Your task to perform on an android device: turn pop-ups off in chrome Image 0: 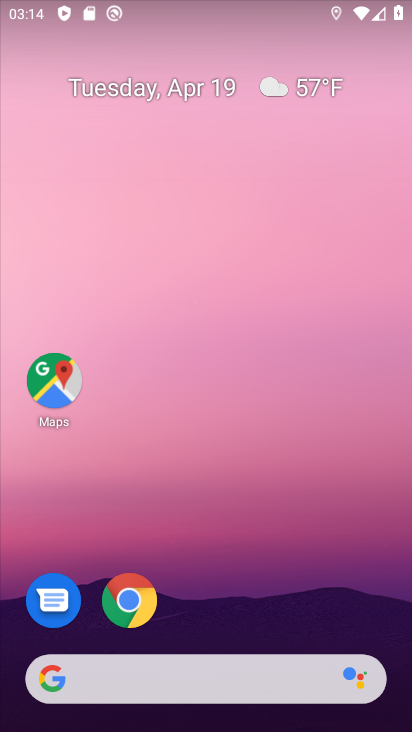
Step 0: drag from (364, 511) to (330, 145)
Your task to perform on an android device: turn pop-ups off in chrome Image 1: 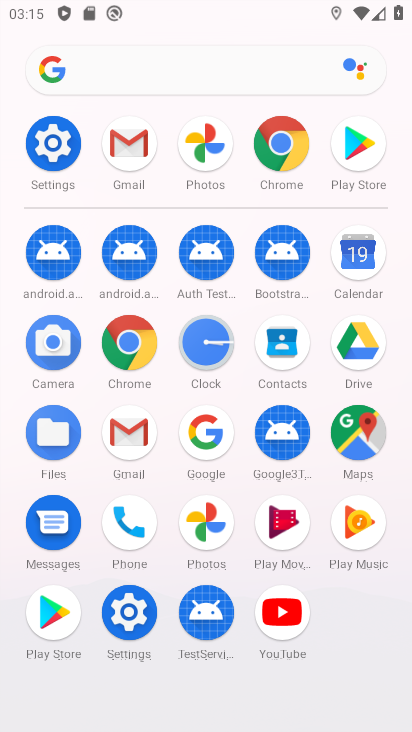
Step 1: click (278, 156)
Your task to perform on an android device: turn pop-ups off in chrome Image 2: 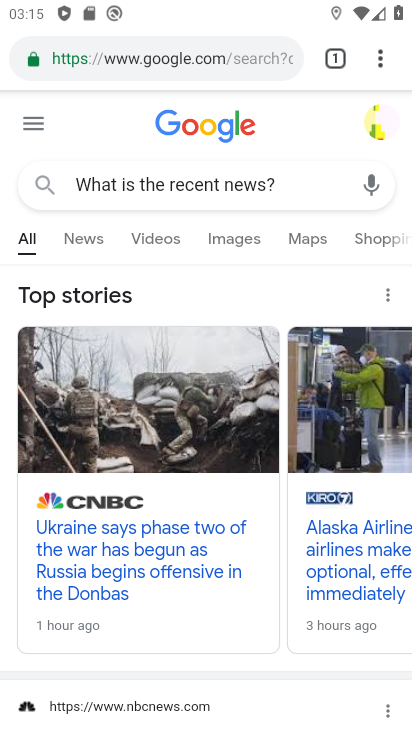
Step 2: click (379, 50)
Your task to perform on an android device: turn pop-ups off in chrome Image 3: 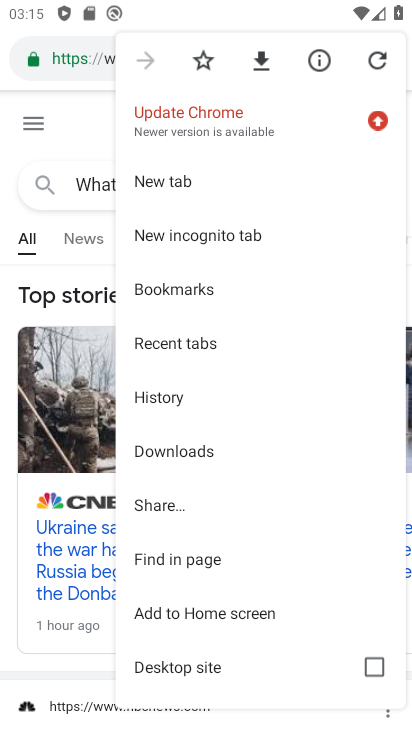
Step 3: drag from (285, 621) to (303, 224)
Your task to perform on an android device: turn pop-ups off in chrome Image 4: 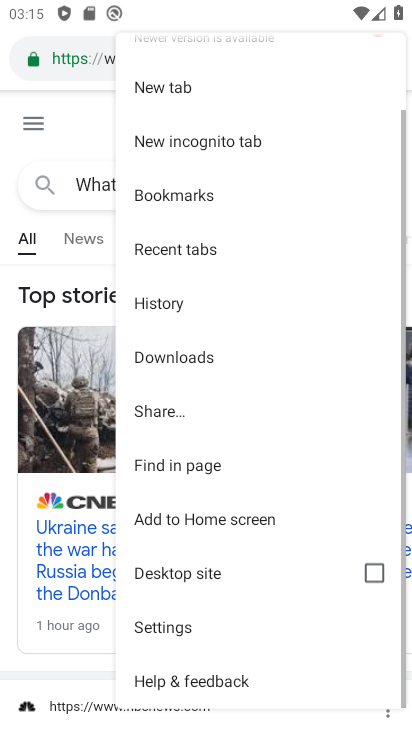
Step 4: click (268, 635)
Your task to perform on an android device: turn pop-ups off in chrome Image 5: 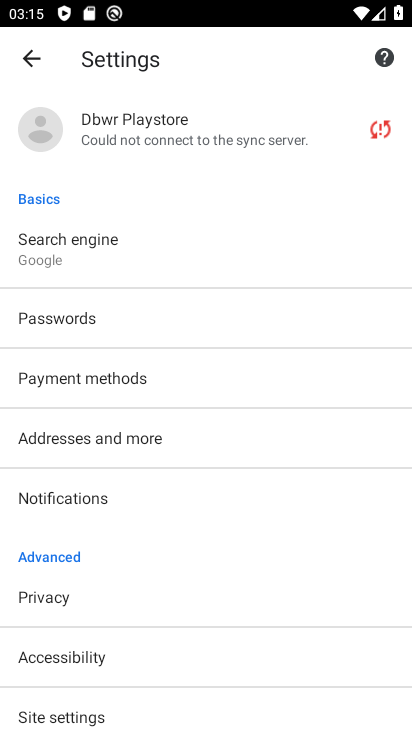
Step 5: drag from (268, 635) to (262, 313)
Your task to perform on an android device: turn pop-ups off in chrome Image 6: 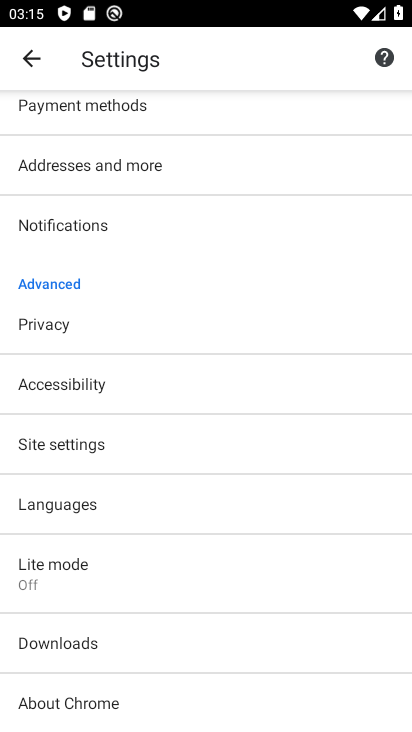
Step 6: click (228, 459)
Your task to perform on an android device: turn pop-ups off in chrome Image 7: 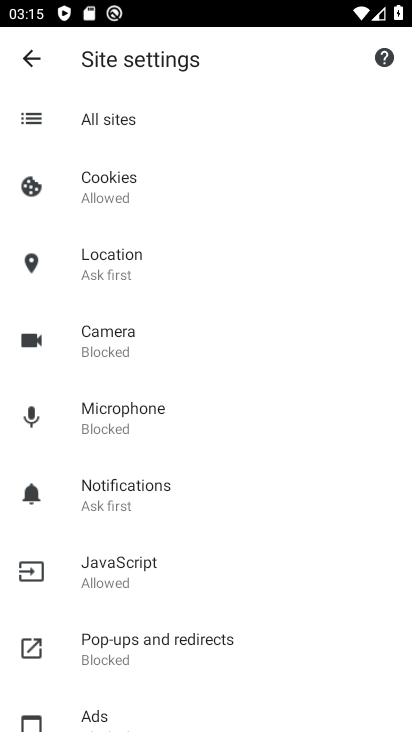
Step 7: drag from (245, 559) to (237, 348)
Your task to perform on an android device: turn pop-ups off in chrome Image 8: 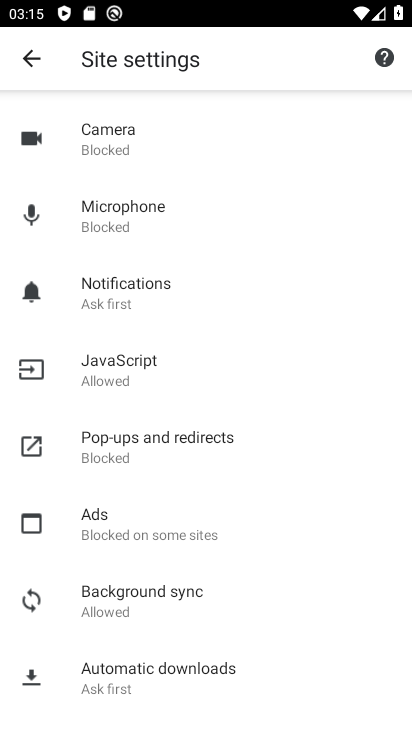
Step 8: click (255, 426)
Your task to perform on an android device: turn pop-ups off in chrome Image 9: 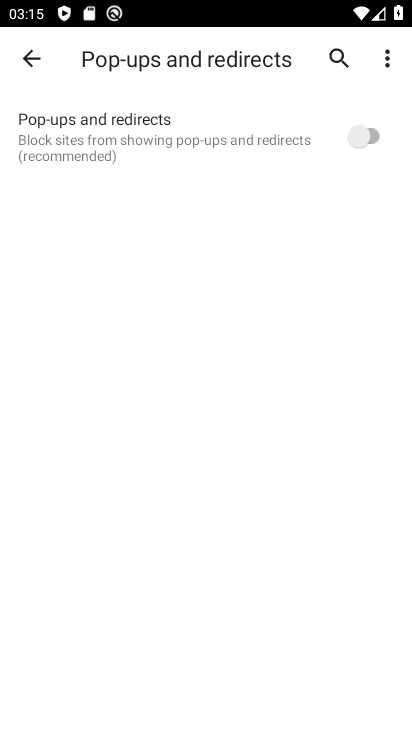
Step 9: task complete